Your task to perform on an android device: open a new tab in the chrome app Image 0: 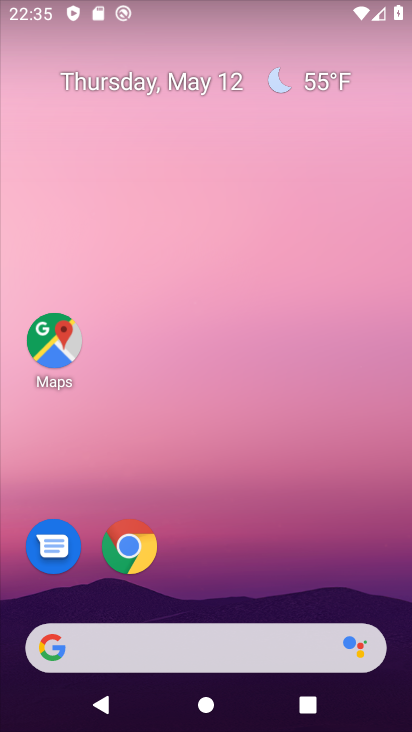
Step 0: click (133, 547)
Your task to perform on an android device: open a new tab in the chrome app Image 1: 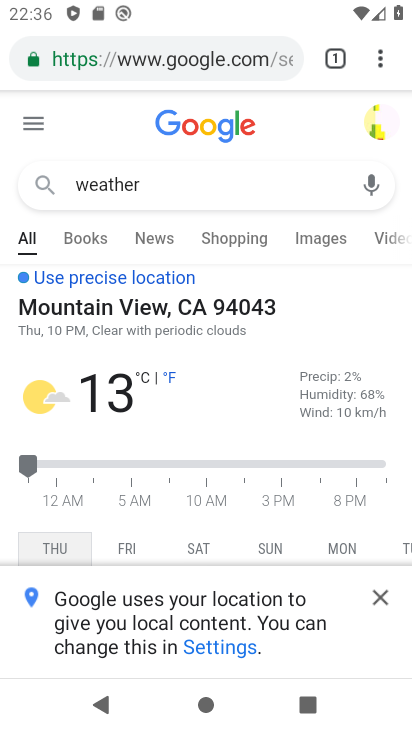
Step 1: click (382, 61)
Your task to perform on an android device: open a new tab in the chrome app Image 2: 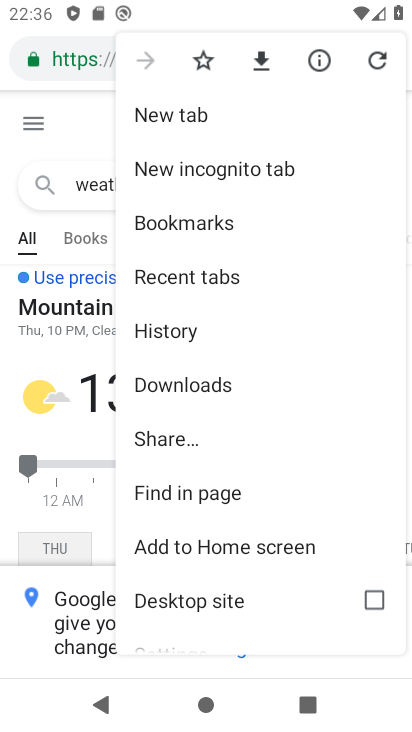
Step 2: click (179, 117)
Your task to perform on an android device: open a new tab in the chrome app Image 3: 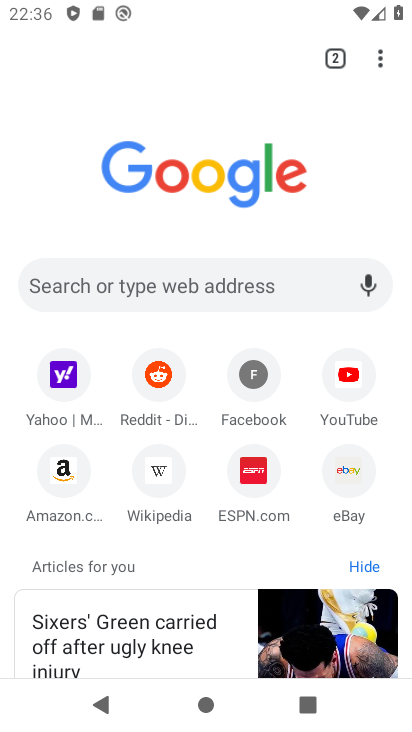
Step 3: task complete